Your task to perform on an android device: open the mobile data screen to see how much data has been used Image 0: 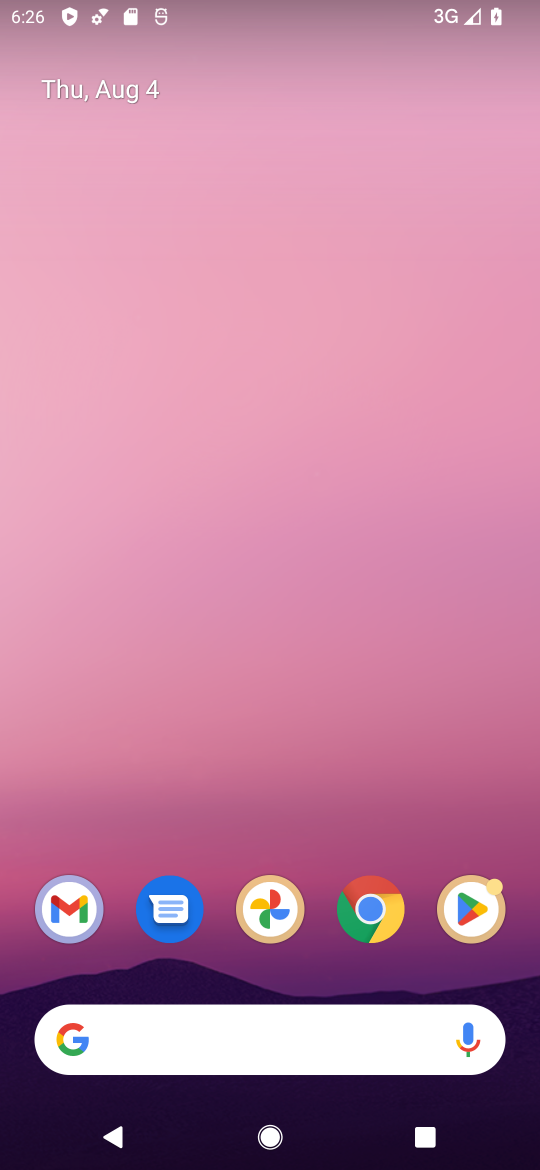
Step 0: drag from (182, 658) to (227, 0)
Your task to perform on an android device: open the mobile data screen to see how much data has been used Image 1: 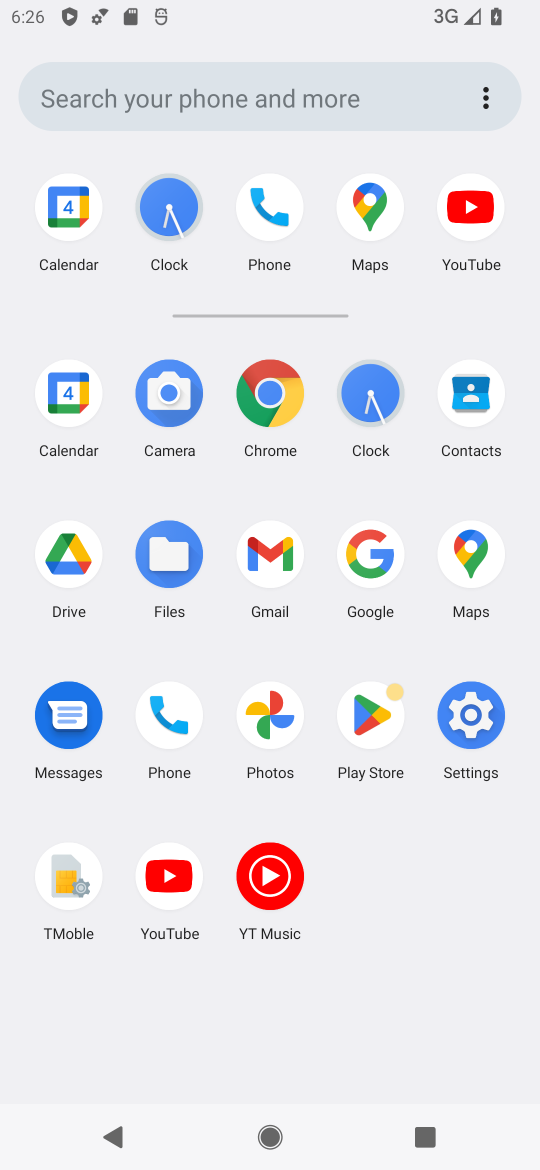
Step 1: click (453, 713)
Your task to perform on an android device: open the mobile data screen to see how much data has been used Image 2: 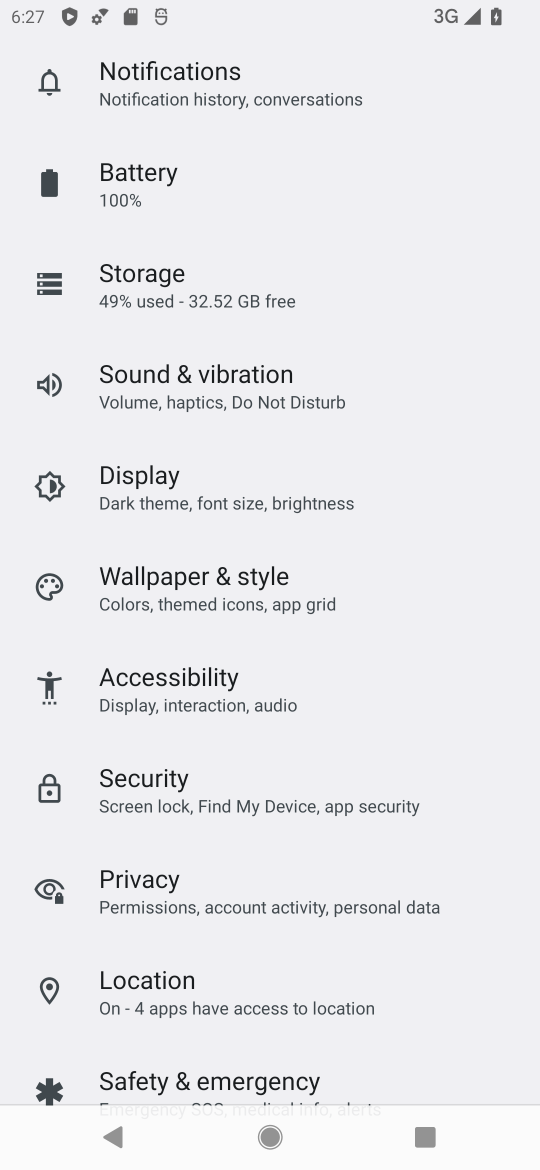
Step 2: drag from (285, 287) to (217, 914)
Your task to perform on an android device: open the mobile data screen to see how much data has been used Image 3: 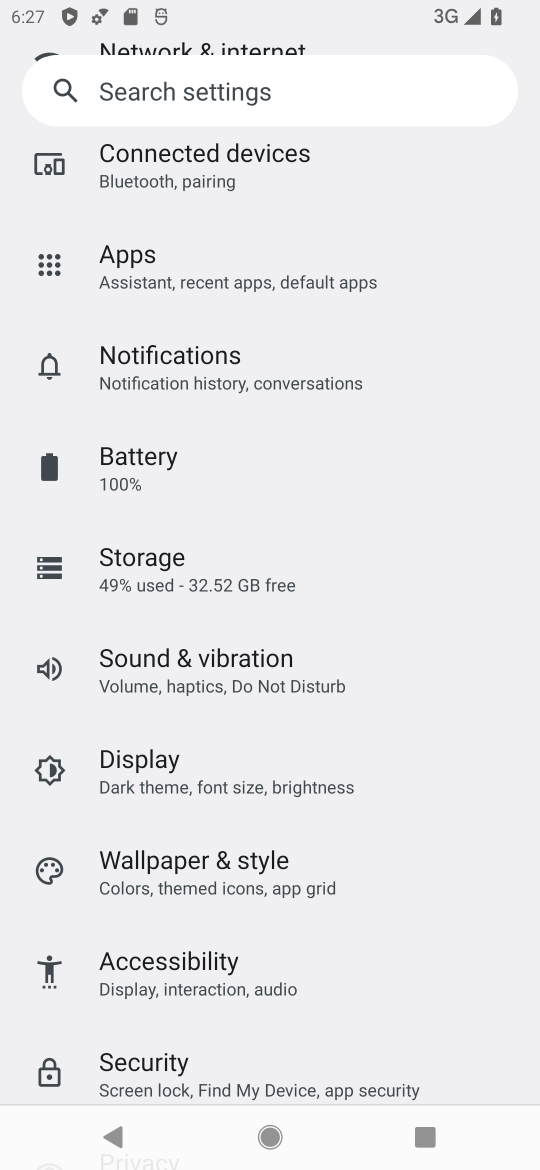
Step 3: drag from (305, 334) to (275, 847)
Your task to perform on an android device: open the mobile data screen to see how much data has been used Image 4: 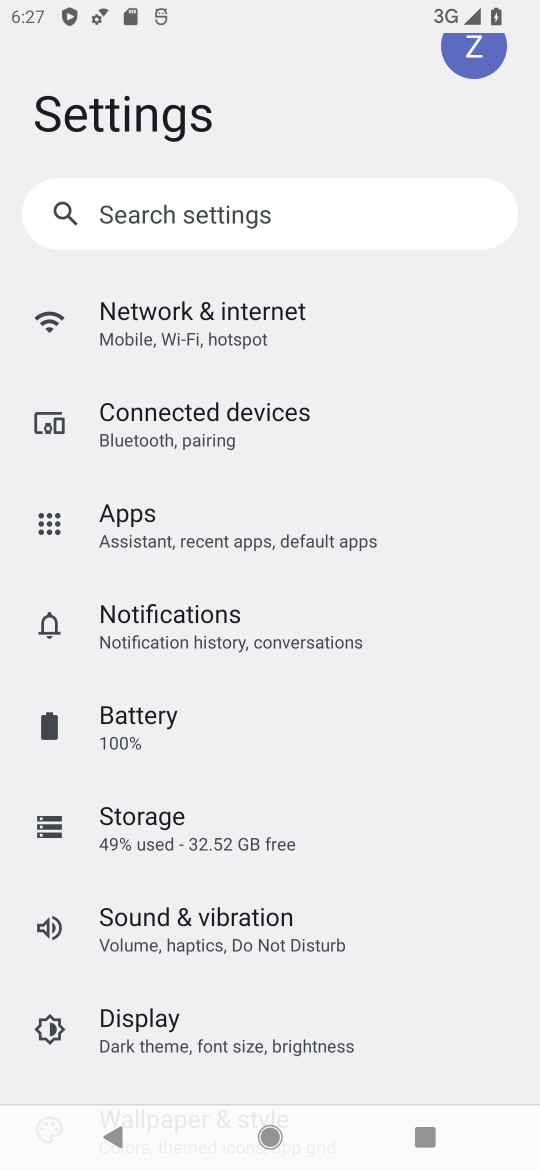
Step 4: click (217, 327)
Your task to perform on an android device: open the mobile data screen to see how much data has been used Image 5: 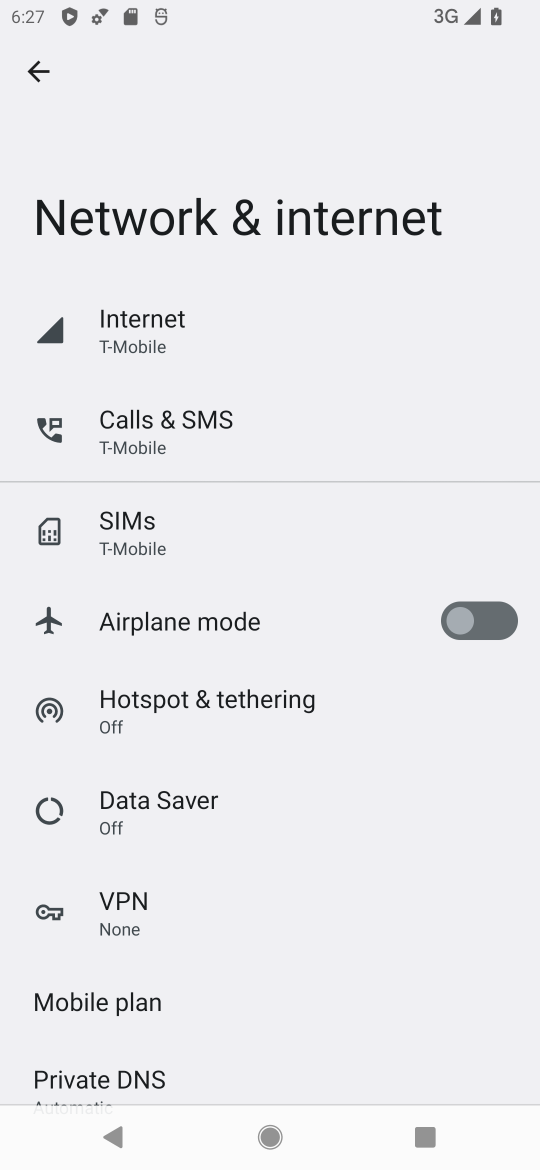
Step 5: click (190, 338)
Your task to perform on an android device: open the mobile data screen to see how much data has been used Image 6: 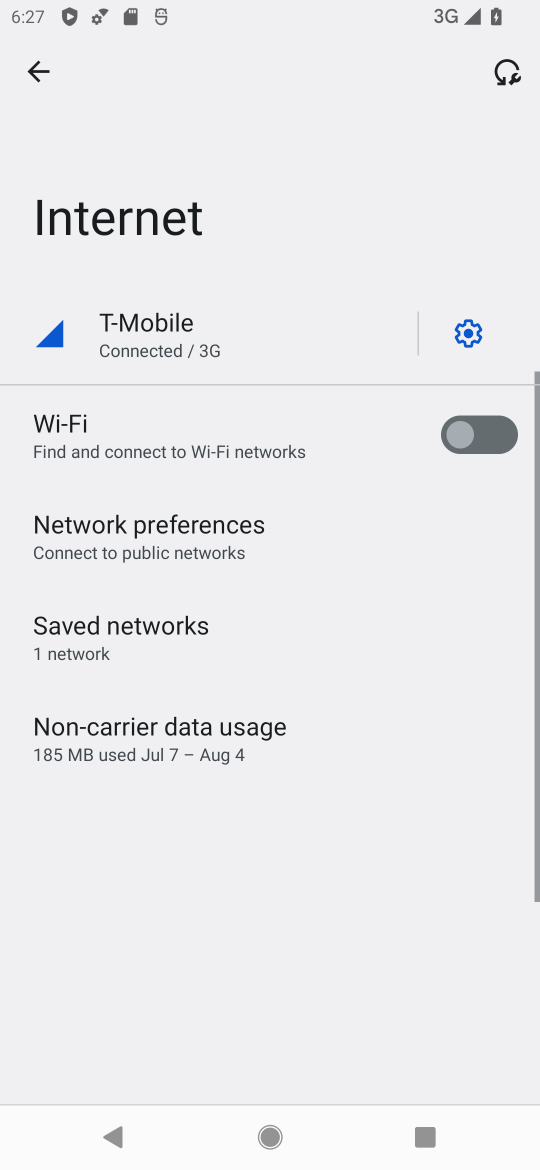
Step 6: click (181, 336)
Your task to perform on an android device: open the mobile data screen to see how much data has been used Image 7: 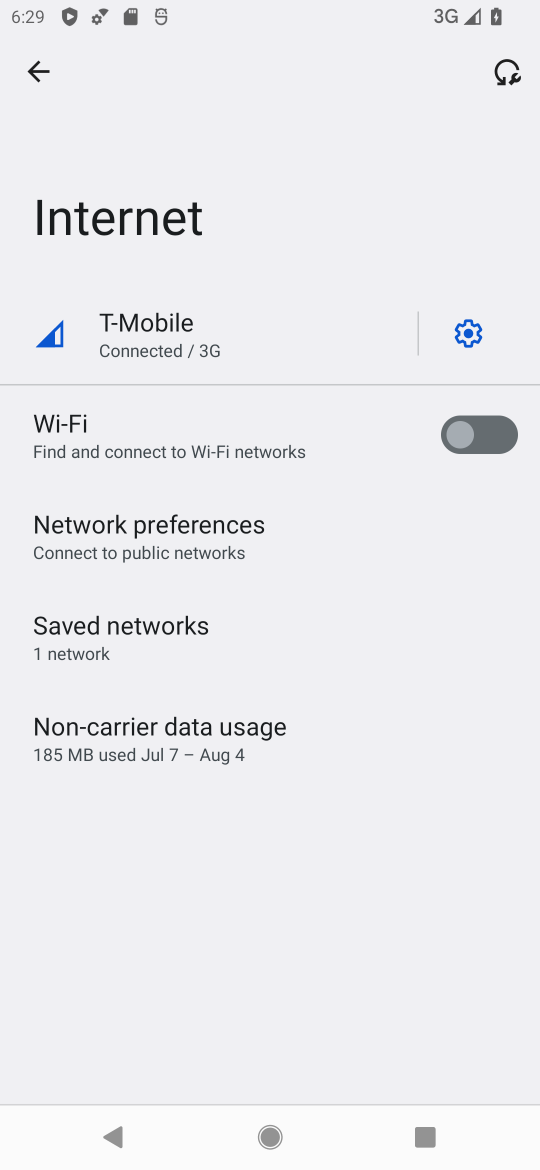
Step 7: task complete